Your task to perform on an android device: set the timer Image 0: 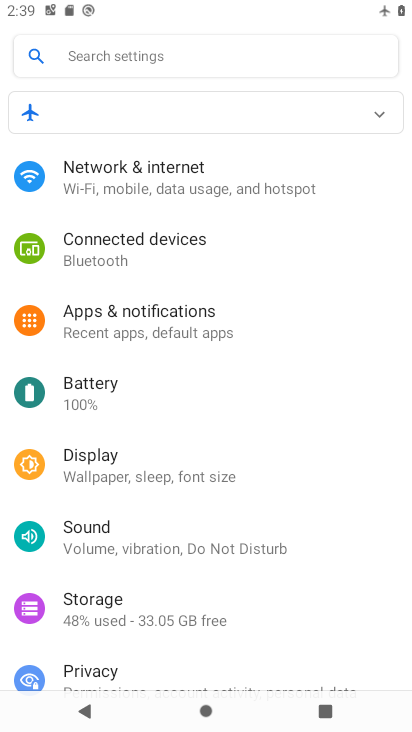
Step 0: drag from (234, 610) to (305, 249)
Your task to perform on an android device: set the timer Image 1: 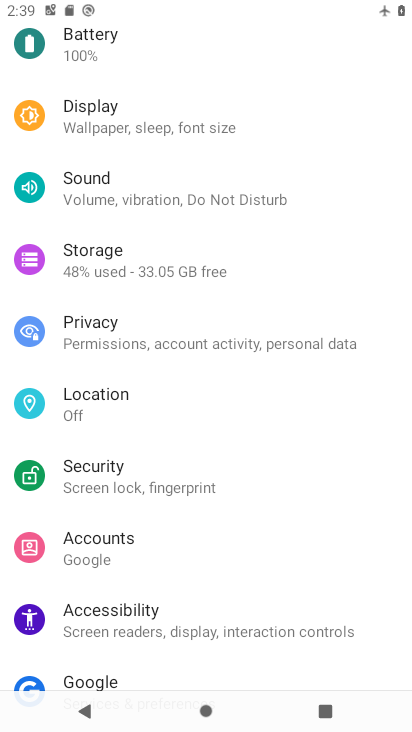
Step 1: press enter
Your task to perform on an android device: set the timer Image 2: 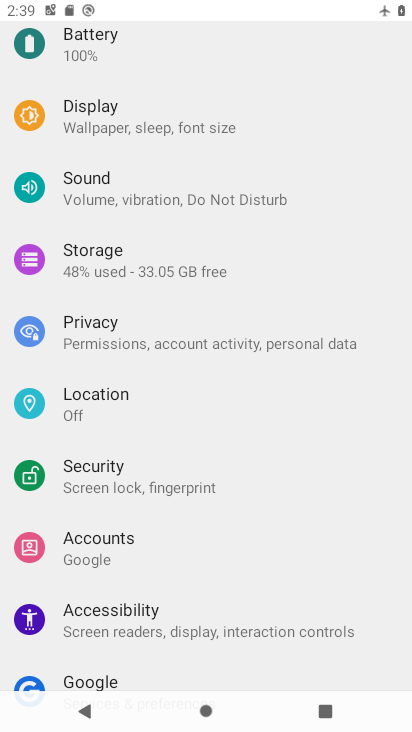
Step 2: press home button
Your task to perform on an android device: set the timer Image 3: 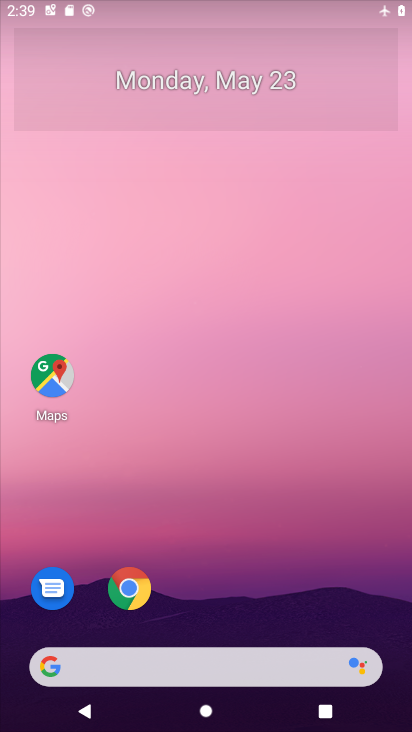
Step 3: drag from (99, 572) to (233, 73)
Your task to perform on an android device: set the timer Image 4: 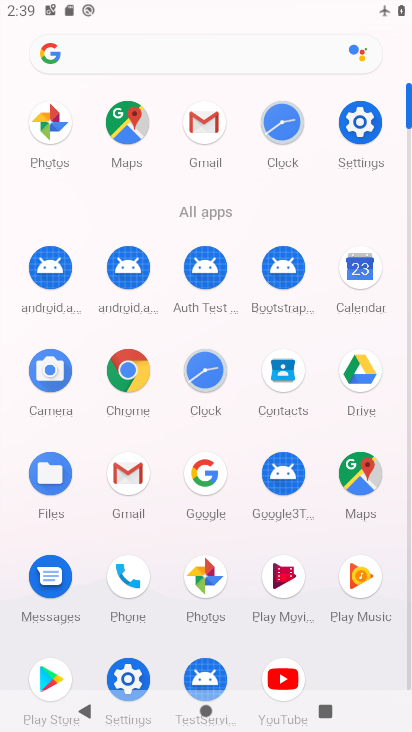
Step 4: click (274, 130)
Your task to perform on an android device: set the timer Image 5: 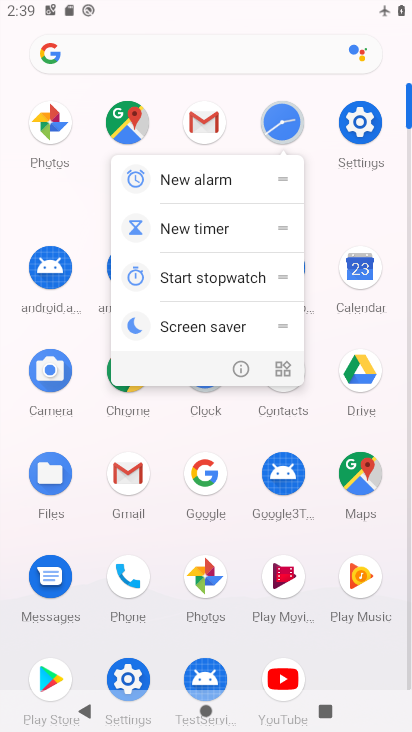
Step 5: click (240, 377)
Your task to perform on an android device: set the timer Image 6: 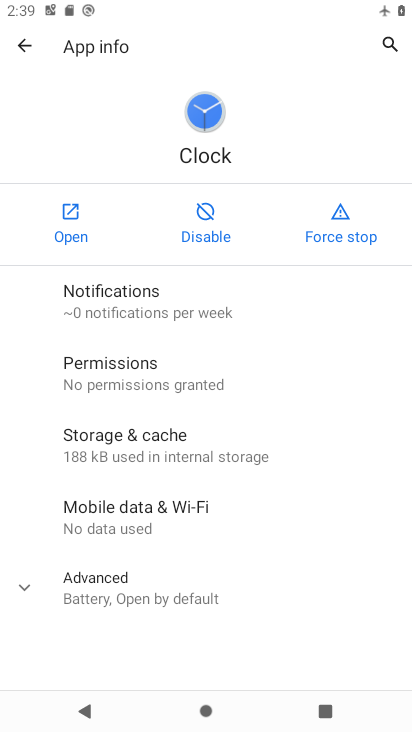
Step 6: click (62, 207)
Your task to perform on an android device: set the timer Image 7: 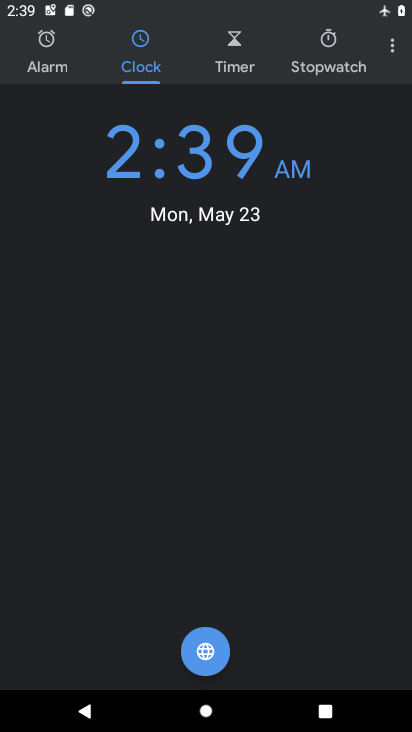
Step 7: click (232, 46)
Your task to perform on an android device: set the timer Image 8: 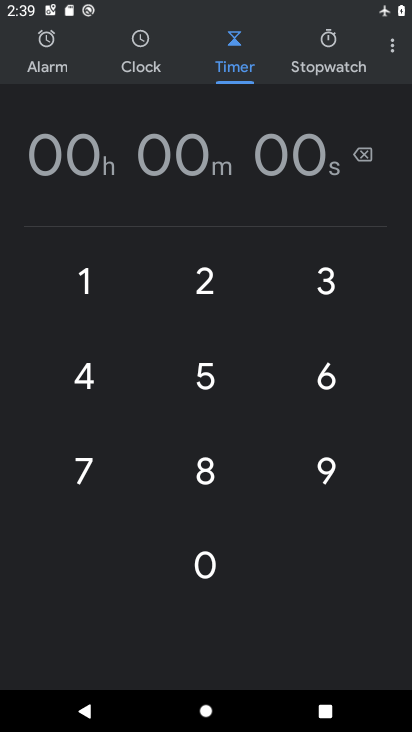
Step 8: click (197, 275)
Your task to perform on an android device: set the timer Image 9: 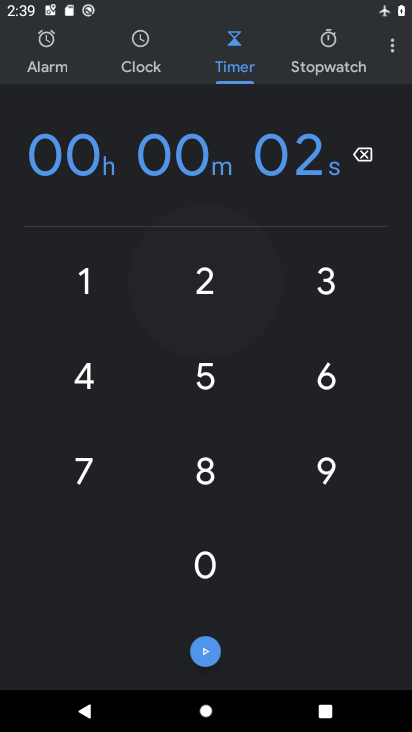
Step 9: click (306, 271)
Your task to perform on an android device: set the timer Image 10: 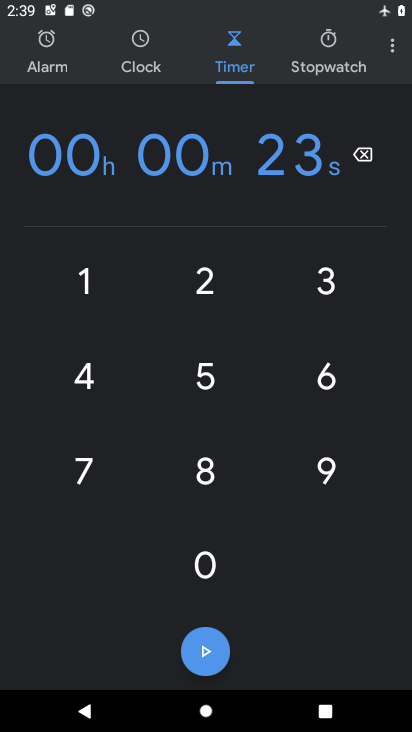
Step 10: click (205, 656)
Your task to perform on an android device: set the timer Image 11: 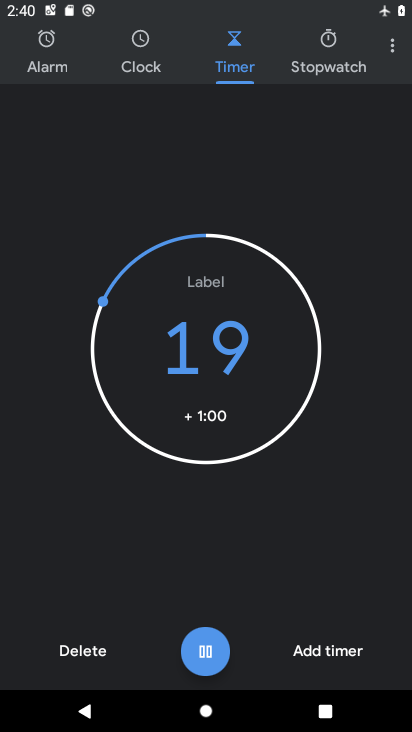
Step 11: task complete